Your task to perform on an android device: read, delete, or share a saved page in the chrome app Image 0: 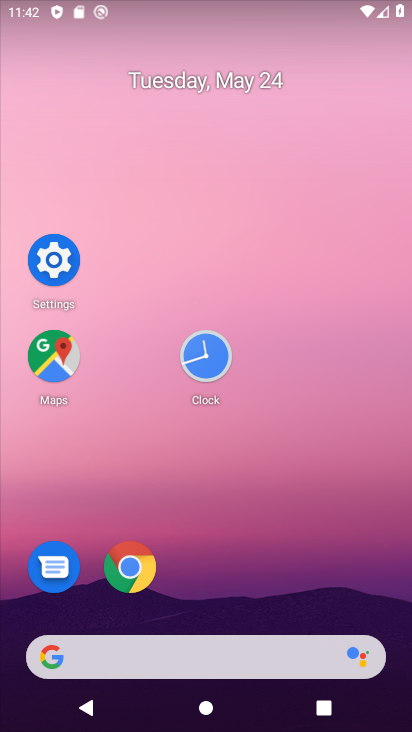
Step 0: click (123, 555)
Your task to perform on an android device: read, delete, or share a saved page in the chrome app Image 1: 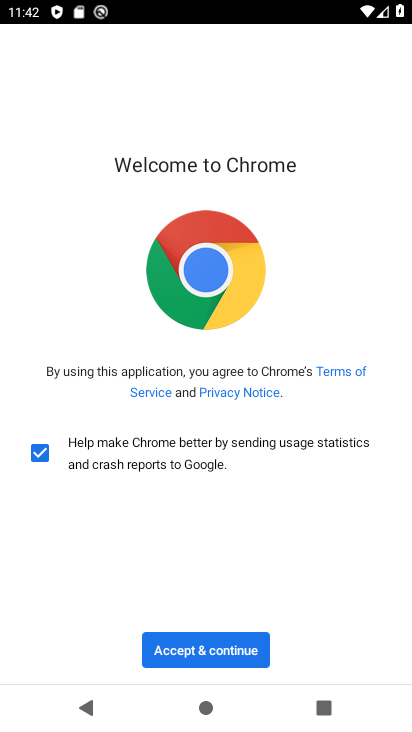
Step 1: click (170, 665)
Your task to perform on an android device: read, delete, or share a saved page in the chrome app Image 2: 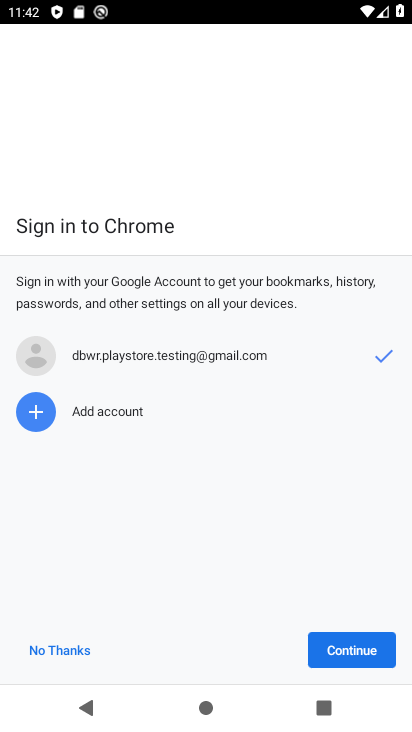
Step 2: click (356, 653)
Your task to perform on an android device: read, delete, or share a saved page in the chrome app Image 3: 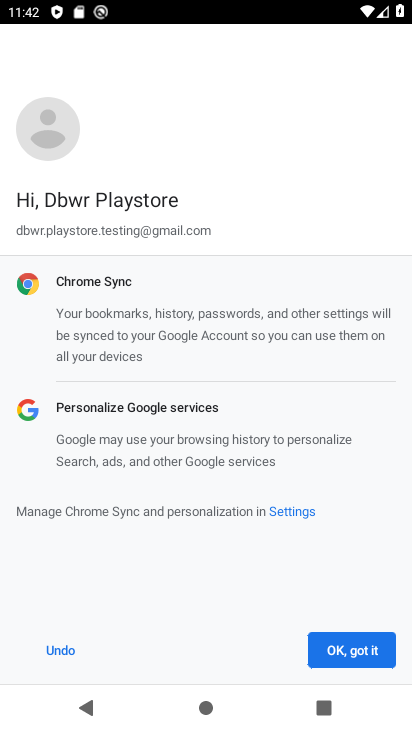
Step 3: click (356, 653)
Your task to perform on an android device: read, delete, or share a saved page in the chrome app Image 4: 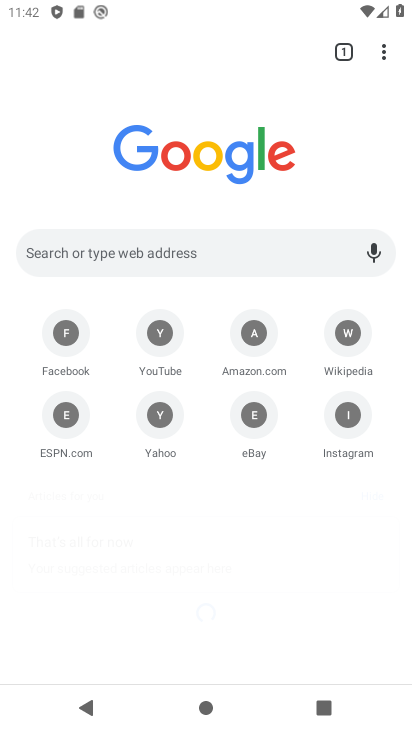
Step 4: click (381, 59)
Your task to perform on an android device: read, delete, or share a saved page in the chrome app Image 5: 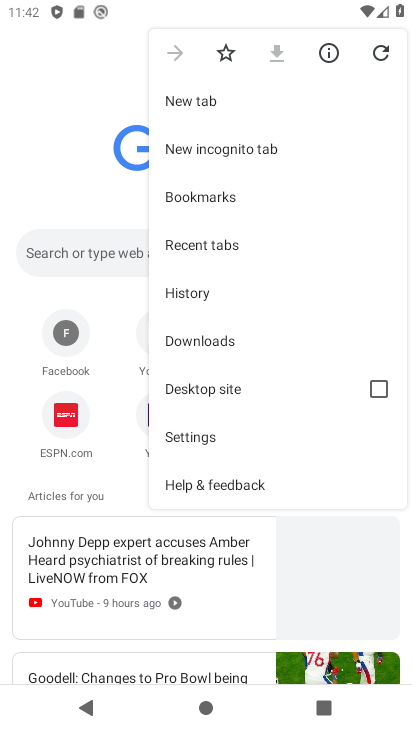
Step 5: click (207, 338)
Your task to perform on an android device: read, delete, or share a saved page in the chrome app Image 6: 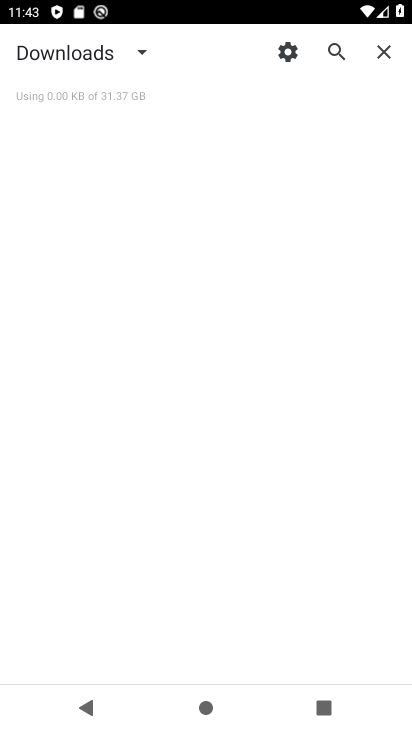
Step 6: task complete